Your task to perform on an android device: clear history in the chrome app Image 0: 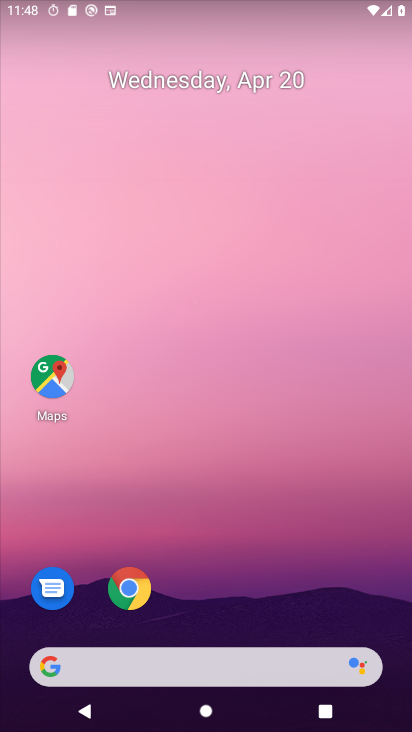
Step 0: drag from (201, 627) to (221, 1)
Your task to perform on an android device: clear history in the chrome app Image 1: 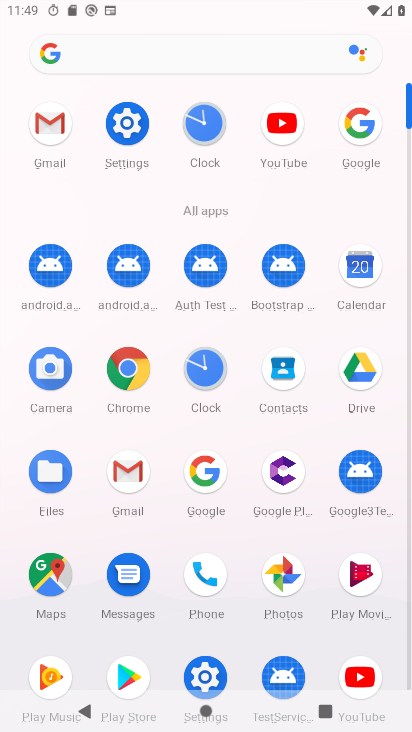
Step 1: click (127, 359)
Your task to perform on an android device: clear history in the chrome app Image 2: 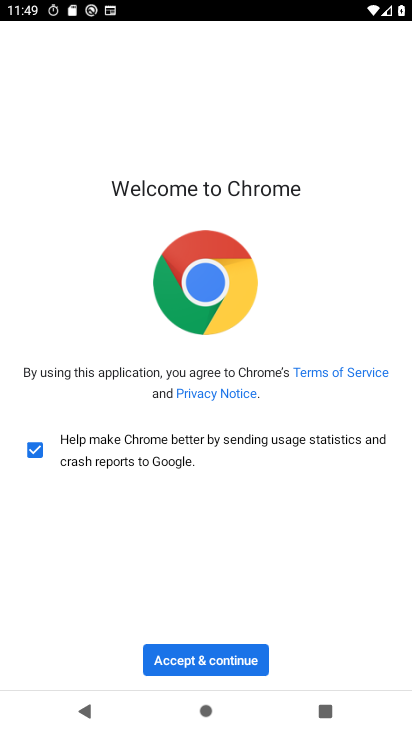
Step 2: click (202, 655)
Your task to perform on an android device: clear history in the chrome app Image 3: 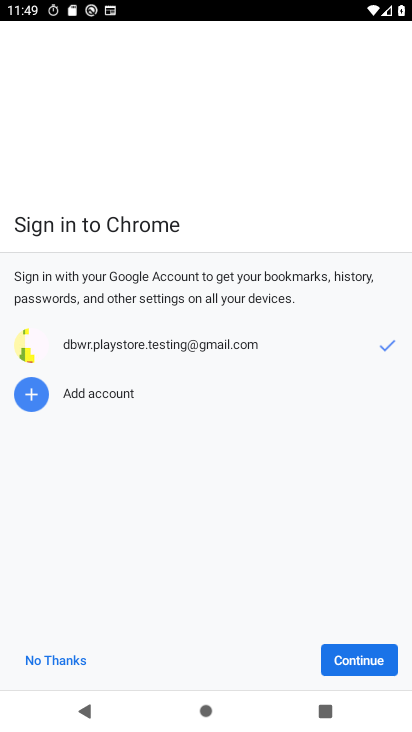
Step 3: click (358, 658)
Your task to perform on an android device: clear history in the chrome app Image 4: 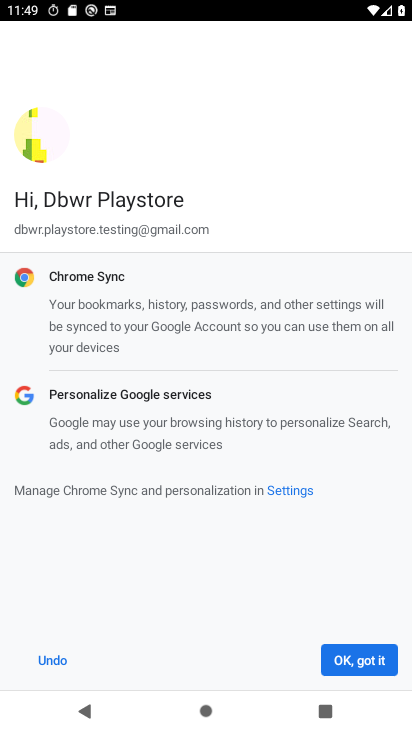
Step 4: click (360, 659)
Your task to perform on an android device: clear history in the chrome app Image 5: 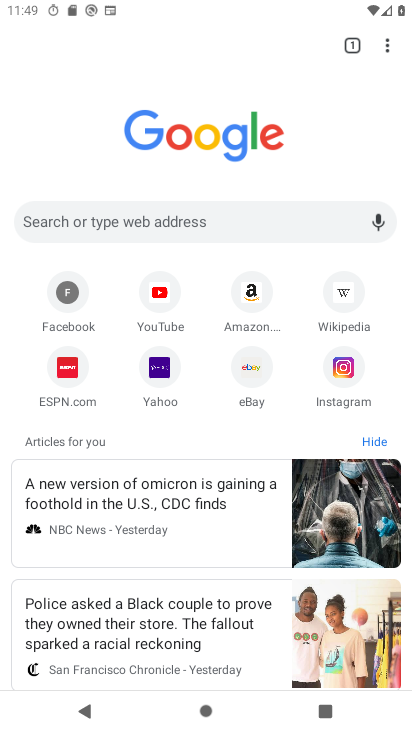
Step 5: click (383, 42)
Your task to perform on an android device: clear history in the chrome app Image 6: 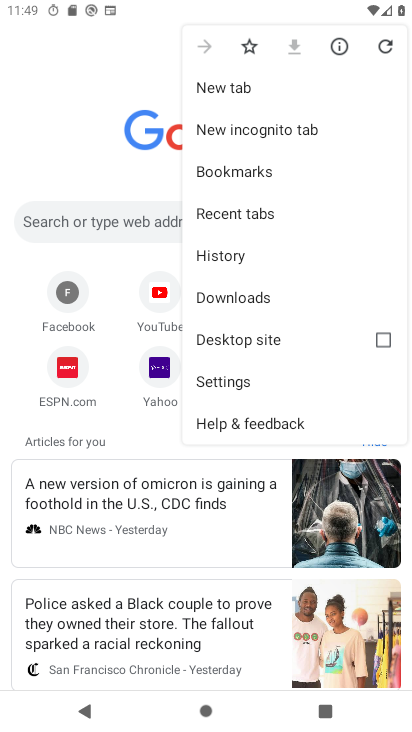
Step 6: click (250, 250)
Your task to perform on an android device: clear history in the chrome app Image 7: 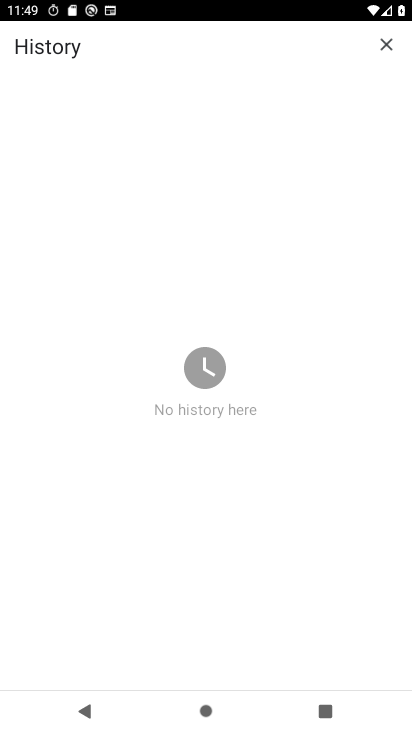
Step 7: task complete